Your task to perform on an android device: toggle data saver in the chrome app Image 0: 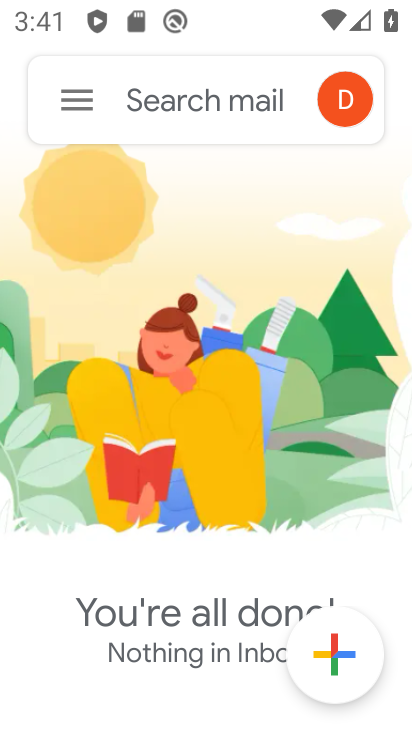
Step 0: press home button
Your task to perform on an android device: toggle data saver in the chrome app Image 1: 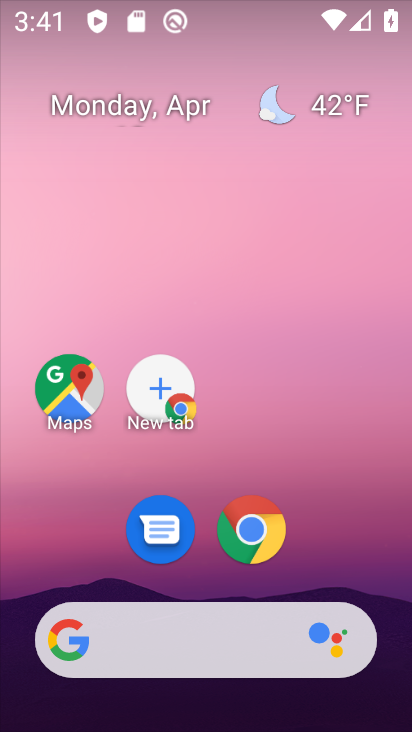
Step 1: click (243, 537)
Your task to perform on an android device: toggle data saver in the chrome app Image 2: 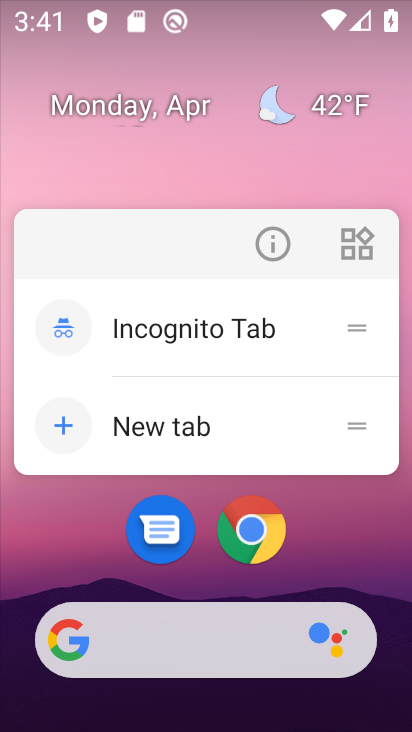
Step 2: click (243, 536)
Your task to perform on an android device: toggle data saver in the chrome app Image 3: 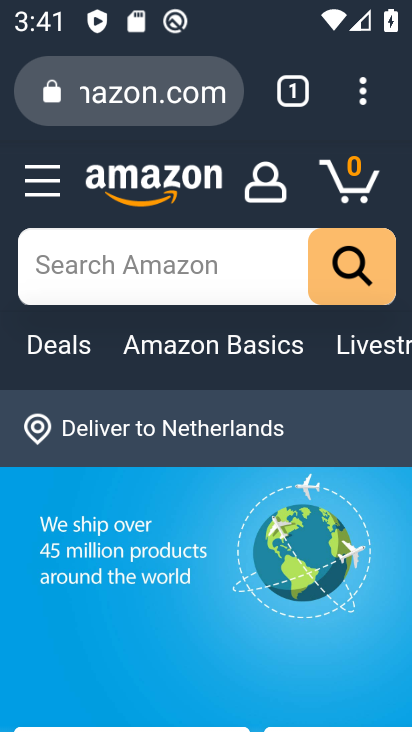
Step 3: drag from (365, 98) to (152, 545)
Your task to perform on an android device: toggle data saver in the chrome app Image 4: 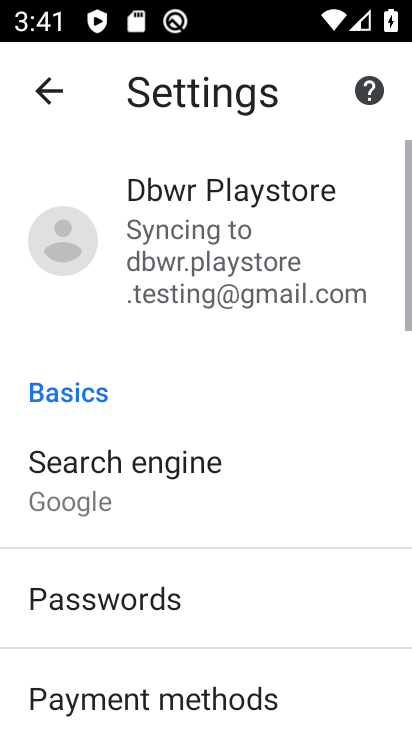
Step 4: drag from (168, 579) to (298, 127)
Your task to perform on an android device: toggle data saver in the chrome app Image 5: 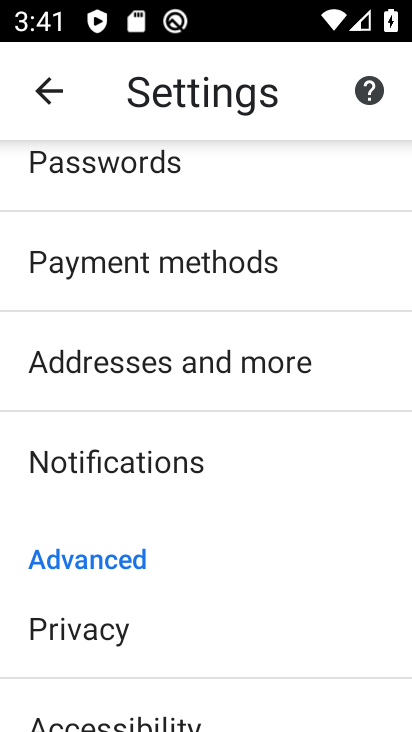
Step 5: drag from (164, 652) to (327, 100)
Your task to perform on an android device: toggle data saver in the chrome app Image 6: 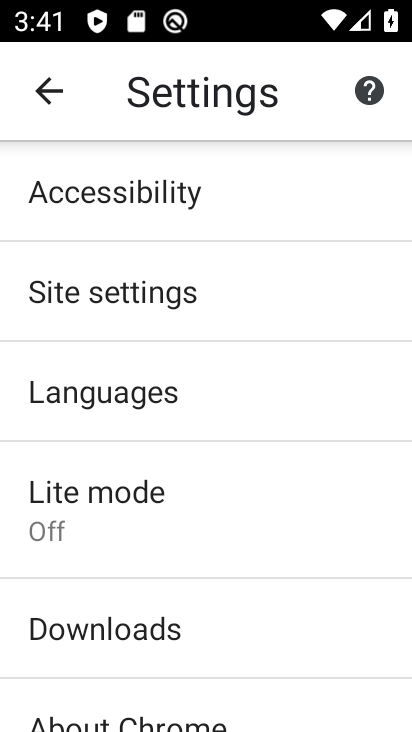
Step 6: click (115, 518)
Your task to perform on an android device: toggle data saver in the chrome app Image 7: 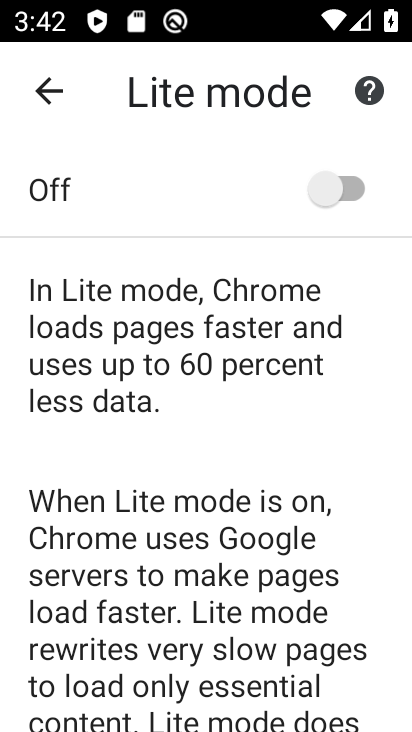
Step 7: click (343, 184)
Your task to perform on an android device: toggle data saver in the chrome app Image 8: 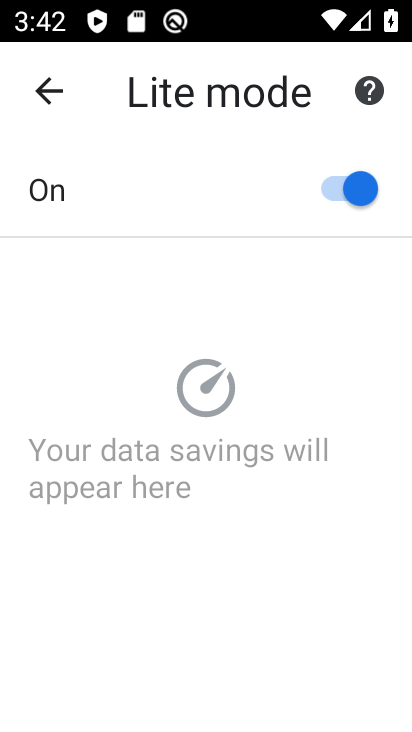
Step 8: task complete